Your task to perform on an android device: Open settings on Google Maps Image 0: 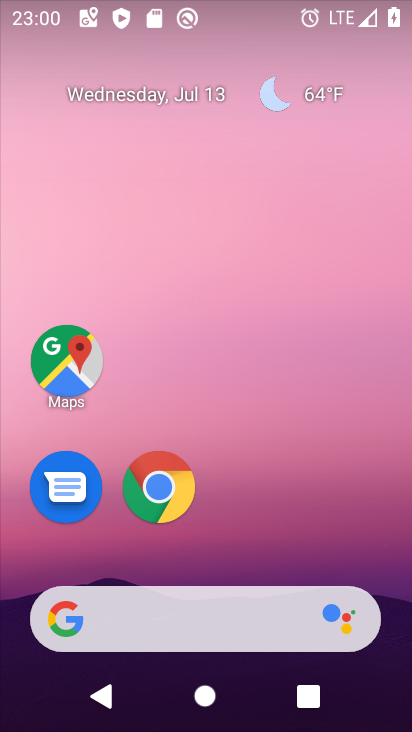
Step 0: click (66, 365)
Your task to perform on an android device: Open settings on Google Maps Image 1: 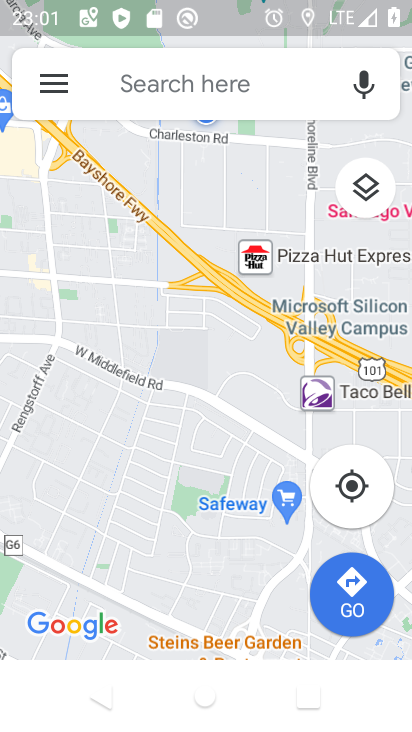
Step 1: click (53, 86)
Your task to perform on an android device: Open settings on Google Maps Image 2: 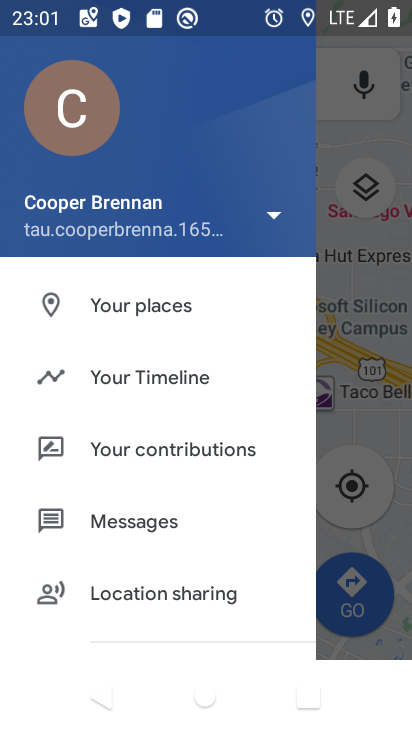
Step 2: drag from (165, 605) to (250, 0)
Your task to perform on an android device: Open settings on Google Maps Image 3: 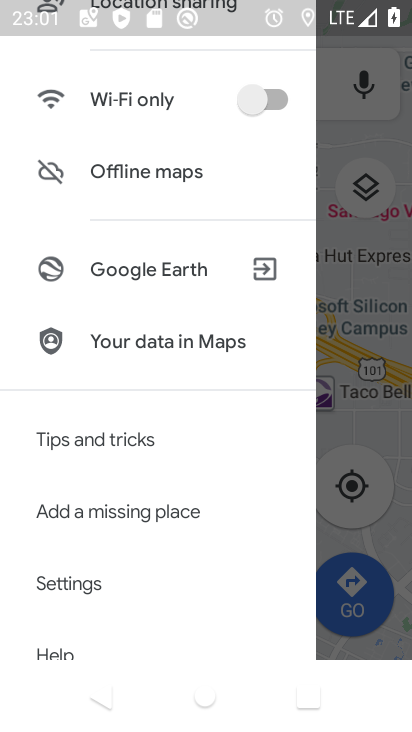
Step 3: click (101, 585)
Your task to perform on an android device: Open settings on Google Maps Image 4: 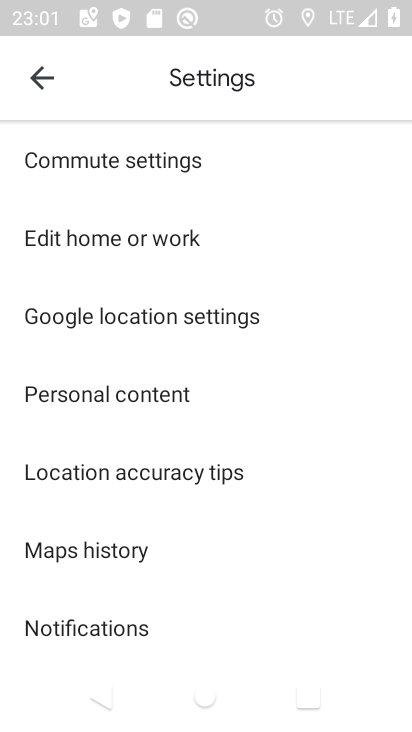
Step 4: task complete